Your task to perform on an android device: What's the weather today? Image 0: 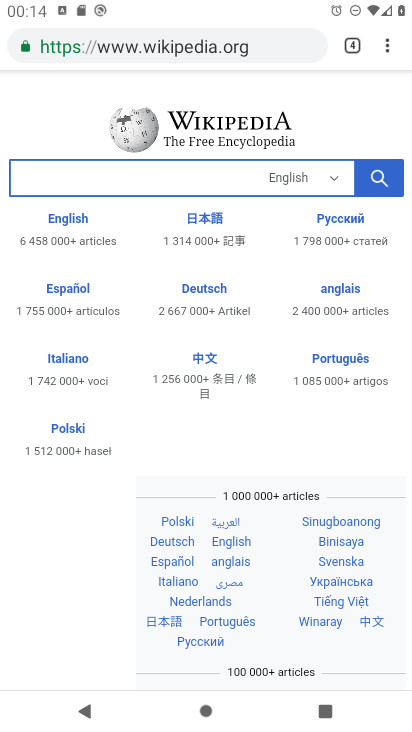
Step 0: press home button
Your task to perform on an android device: What's the weather today? Image 1: 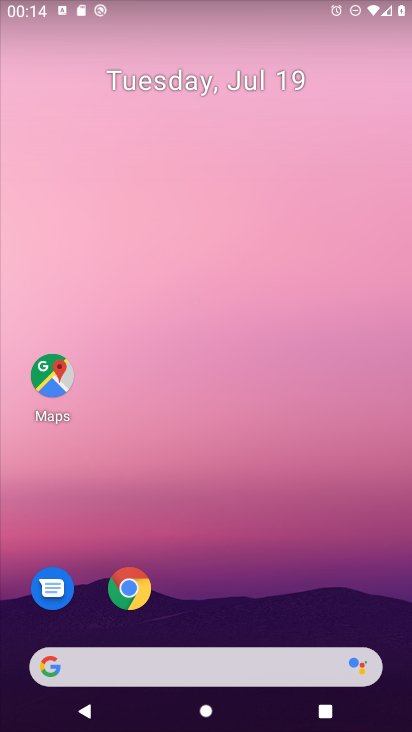
Step 1: drag from (0, 265) to (403, 301)
Your task to perform on an android device: What's the weather today? Image 2: 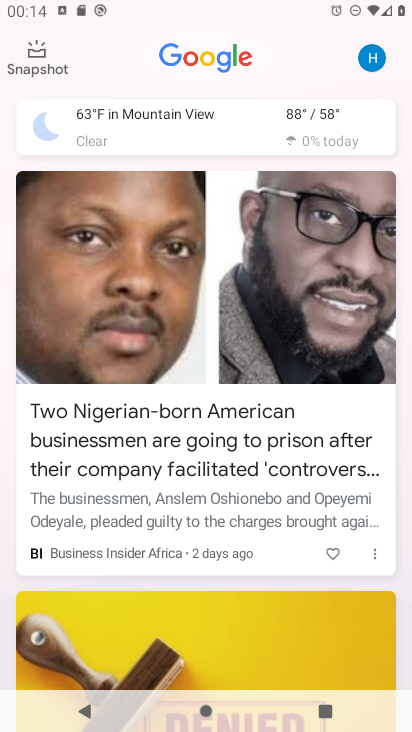
Step 2: click (296, 114)
Your task to perform on an android device: What's the weather today? Image 3: 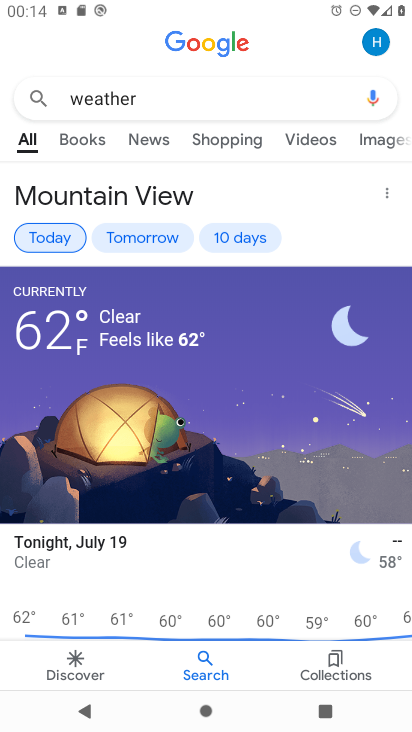
Step 3: task complete